Your task to perform on an android device: Open Chrome and go to settings Image 0: 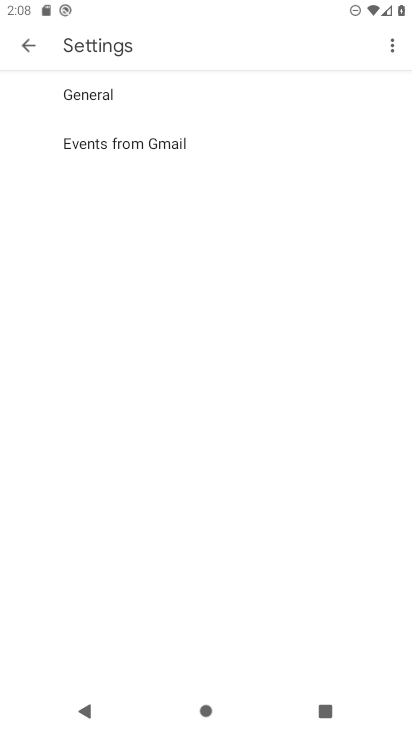
Step 0: press home button
Your task to perform on an android device: Open Chrome and go to settings Image 1: 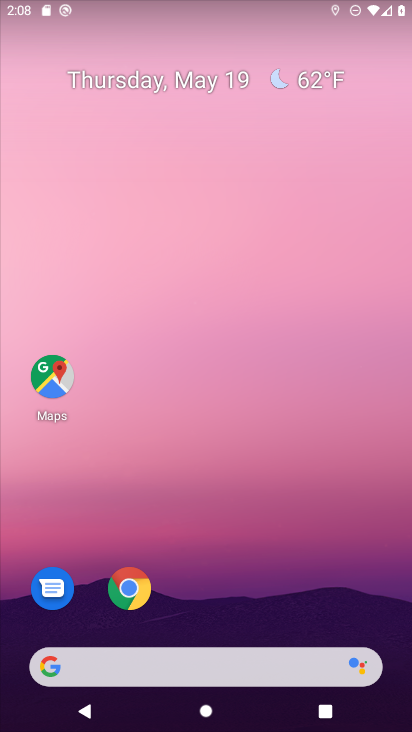
Step 1: click (130, 590)
Your task to perform on an android device: Open Chrome and go to settings Image 2: 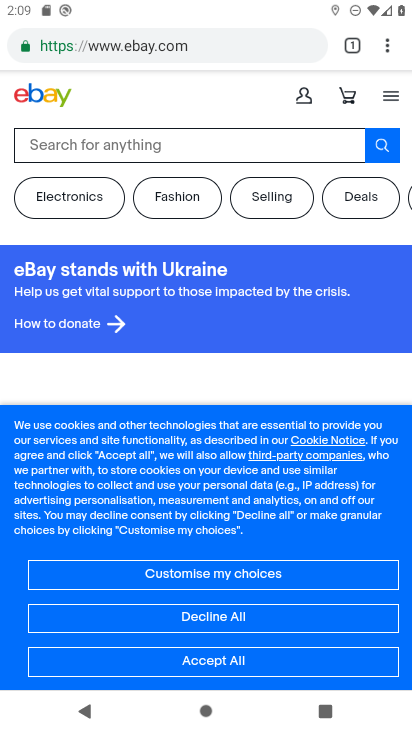
Step 2: click (390, 48)
Your task to perform on an android device: Open Chrome and go to settings Image 3: 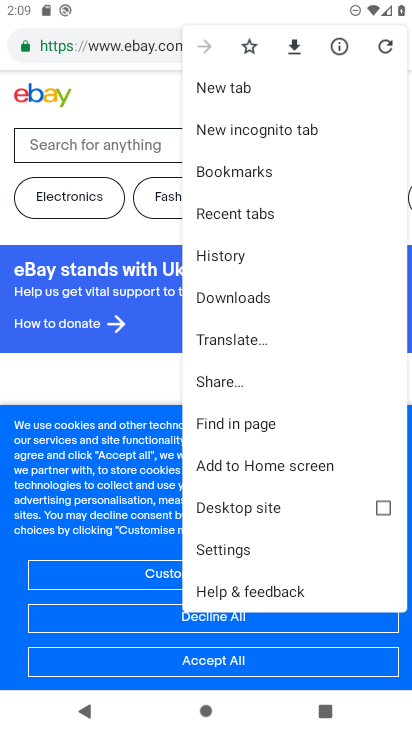
Step 3: click (226, 547)
Your task to perform on an android device: Open Chrome and go to settings Image 4: 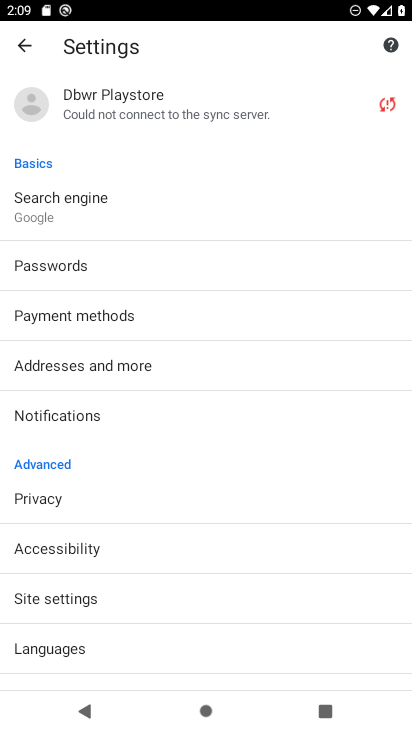
Step 4: task complete